Your task to perform on an android device: Do I have any events tomorrow? Image 0: 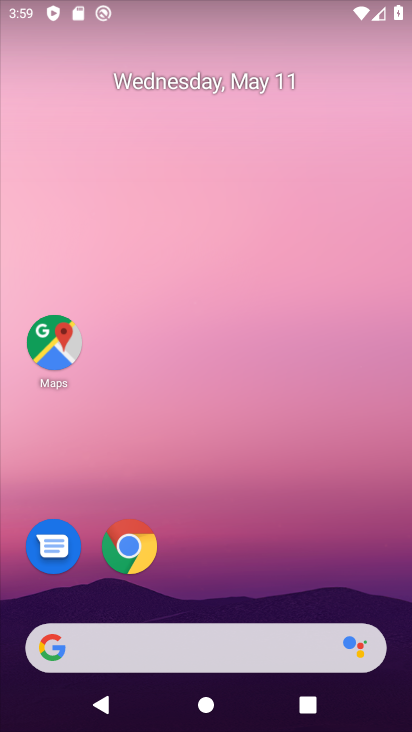
Step 0: drag from (214, 575) to (321, 117)
Your task to perform on an android device: Do I have any events tomorrow? Image 1: 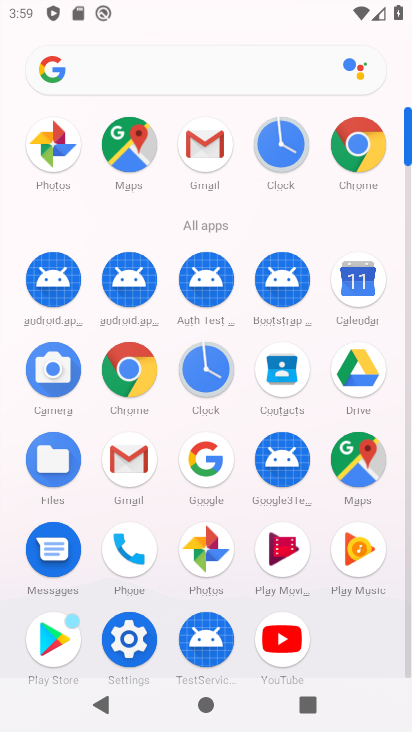
Step 1: click (353, 291)
Your task to perform on an android device: Do I have any events tomorrow? Image 2: 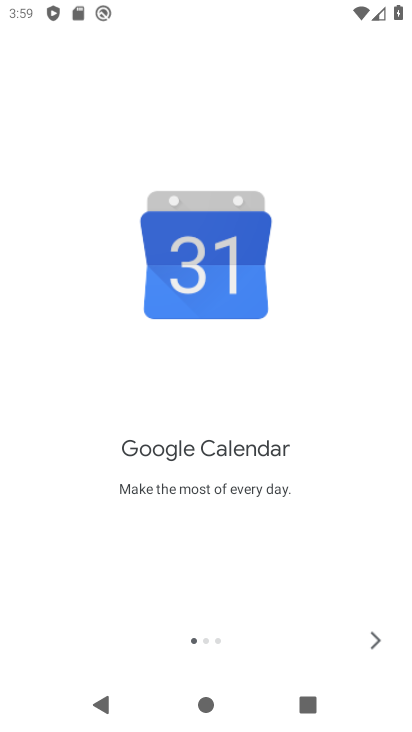
Step 2: click (373, 639)
Your task to perform on an android device: Do I have any events tomorrow? Image 3: 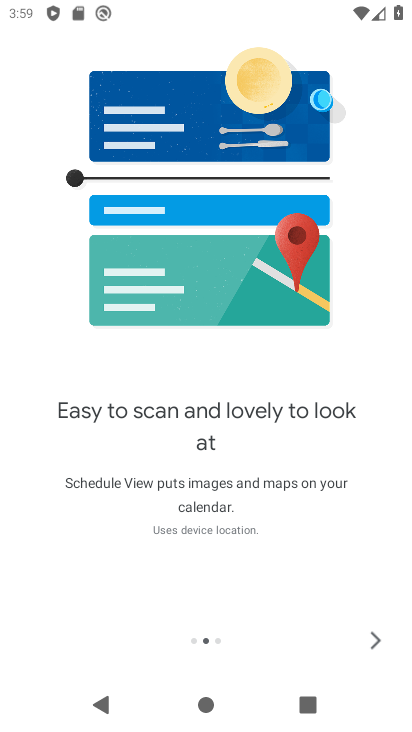
Step 3: click (373, 639)
Your task to perform on an android device: Do I have any events tomorrow? Image 4: 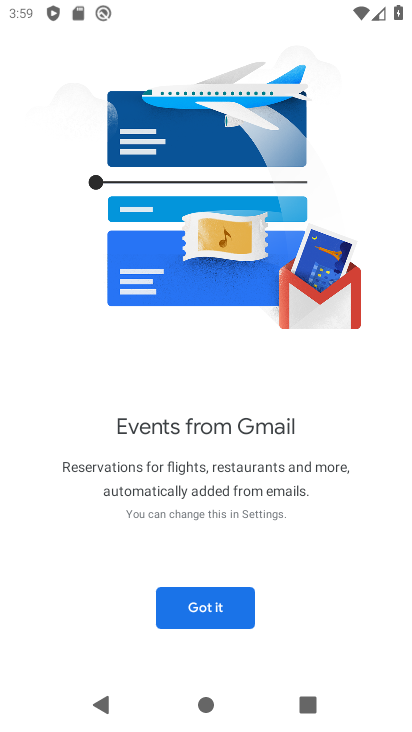
Step 4: click (230, 603)
Your task to perform on an android device: Do I have any events tomorrow? Image 5: 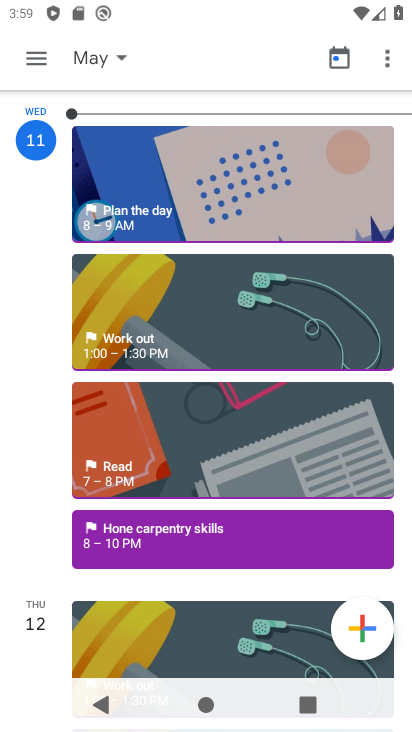
Step 5: click (96, 58)
Your task to perform on an android device: Do I have any events tomorrow? Image 6: 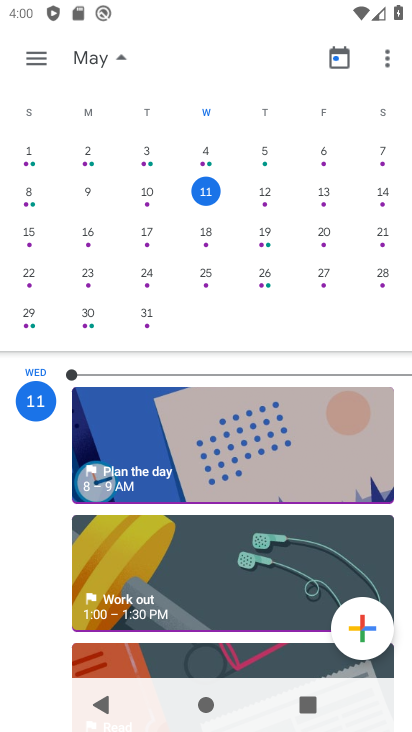
Step 6: click (269, 194)
Your task to perform on an android device: Do I have any events tomorrow? Image 7: 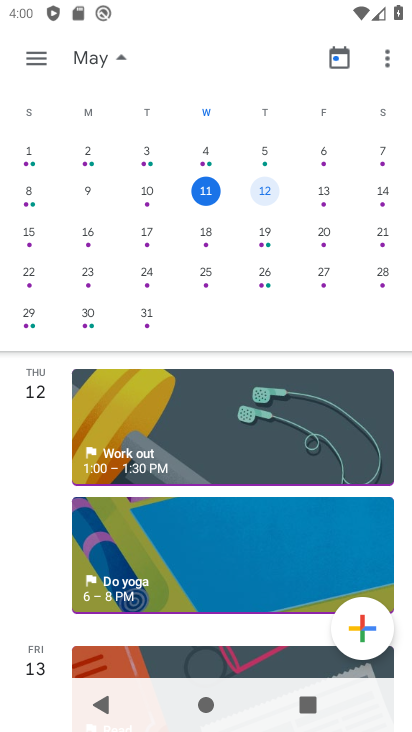
Step 7: drag from (186, 616) to (200, 385)
Your task to perform on an android device: Do I have any events tomorrow? Image 8: 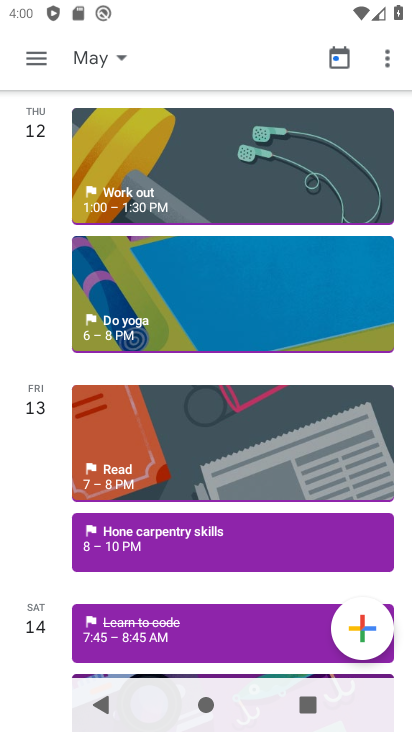
Step 8: click (185, 205)
Your task to perform on an android device: Do I have any events tomorrow? Image 9: 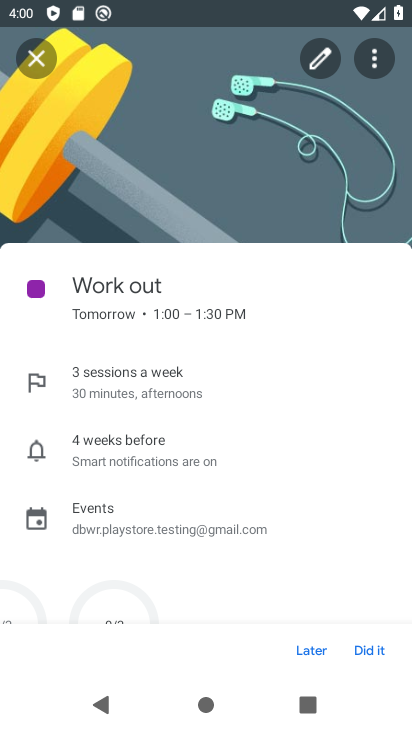
Step 9: task complete